Your task to perform on an android device: set default search engine in the chrome app Image 0: 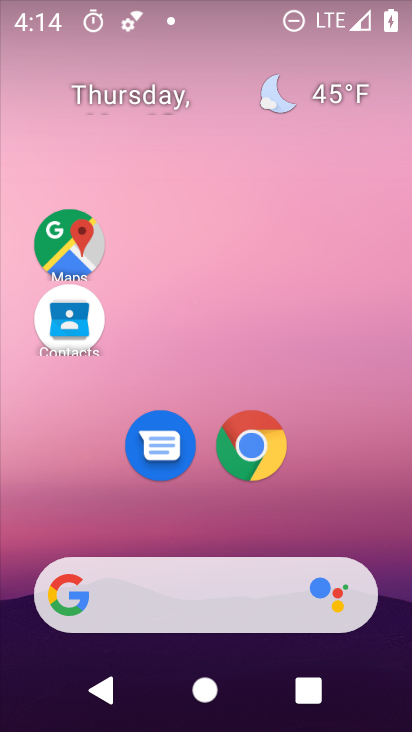
Step 0: click (252, 442)
Your task to perform on an android device: set default search engine in the chrome app Image 1: 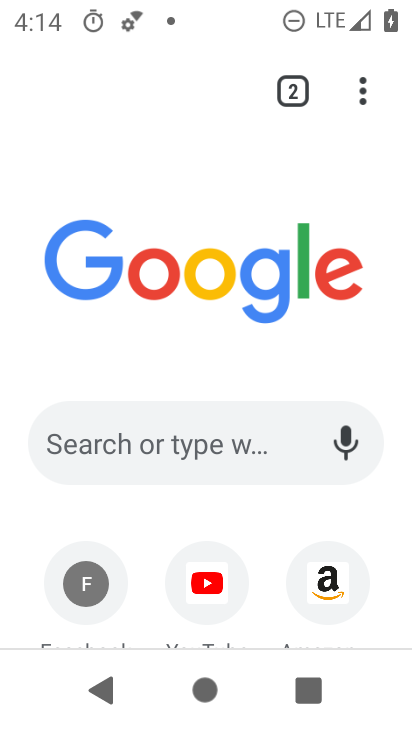
Step 1: click (362, 94)
Your task to perform on an android device: set default search engine in the chrome app Image 2: 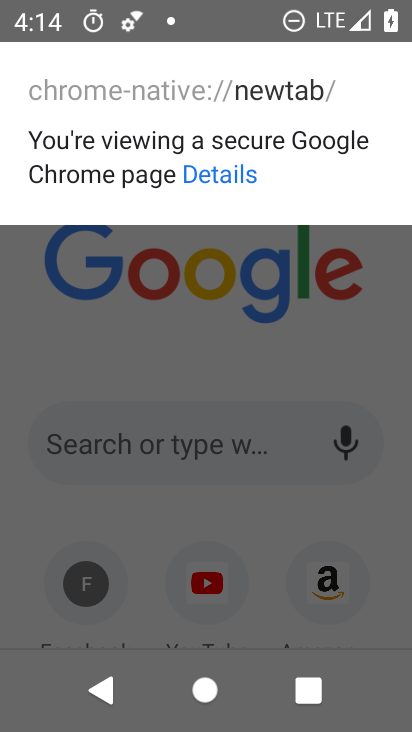
Step 2: click (391, 252)
Your task to perform on an android device: set default search engine in the chrome app Image 3: 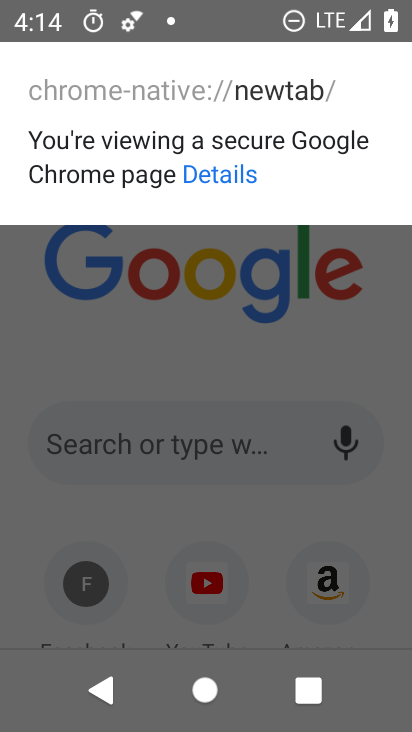
Step 3: click (393, 275)
Your task to perform on an android device: set default search engine in the chrome app Image 4: 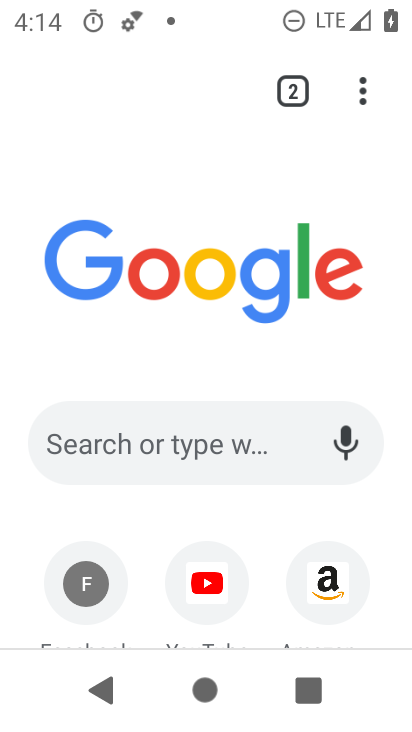
Step 4: click (361, 92)
Your task to perform on an android device: set default search engine in the chrome app Image 5: 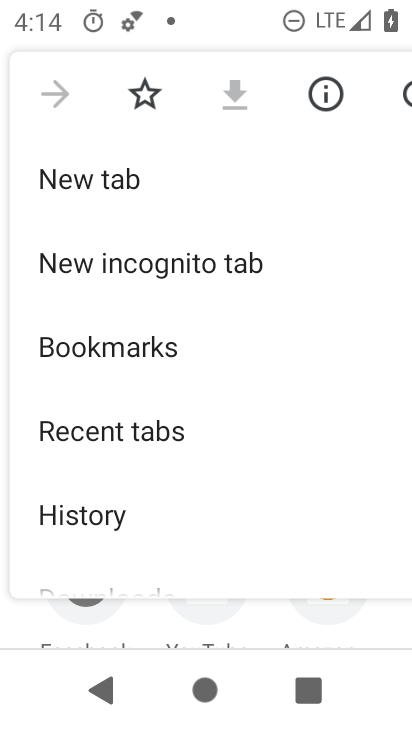
Step 5: drag from (198, 399) to (231, 293)
Your task to perform on an android device: set default search engine in the chrome app Image 6: 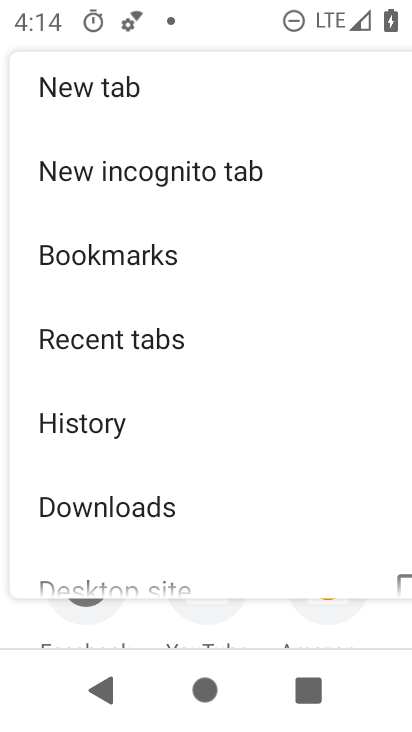
Step 6: drag from (201, 447) to (240, 327)
Your task to perform on an android device: set default search engine in the chrome app Image 7: 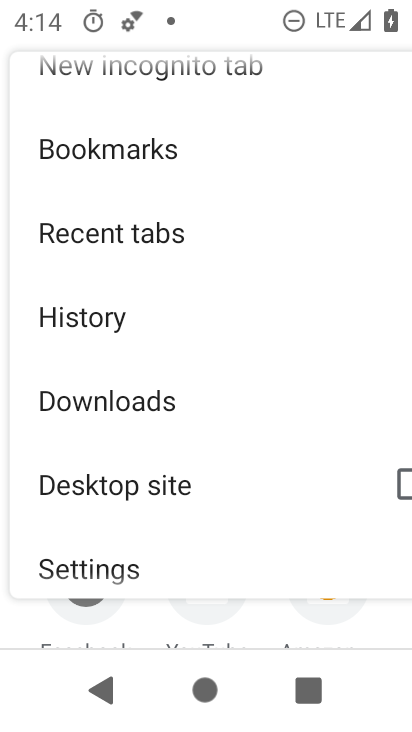
Step 7: drag from (194, 565) to (242, 441)
Your task to perform on an android device: set default search engine in the chrome app Image 8: 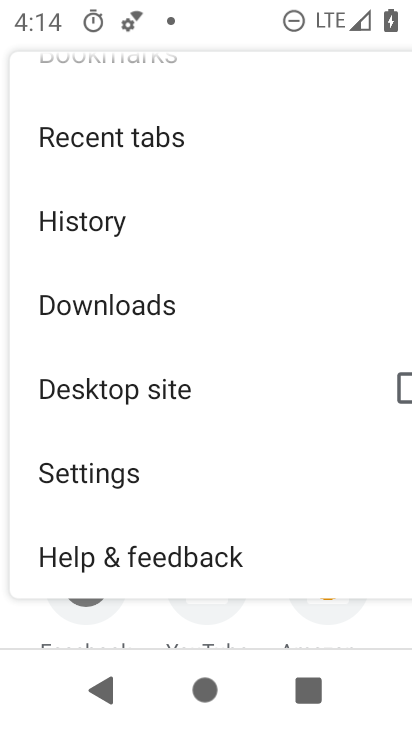
Step 8: click (127, 467)
Your task to perform on an android device: set default search engine in the chrome app Image 9: 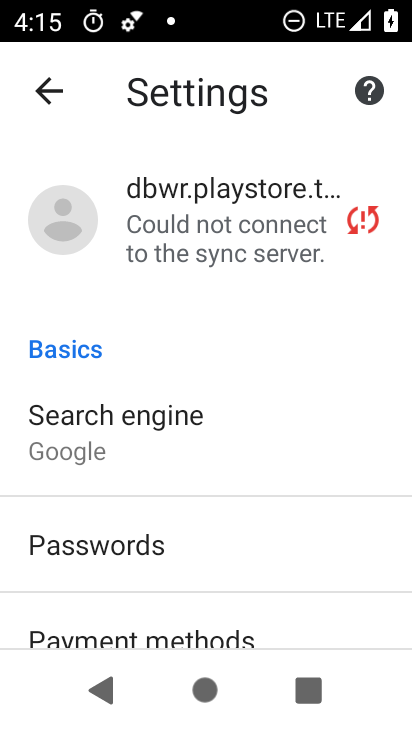
Step 9: click (137, 416)
Your task to perform on an android device: set default search engine in the chrome app Image 10: 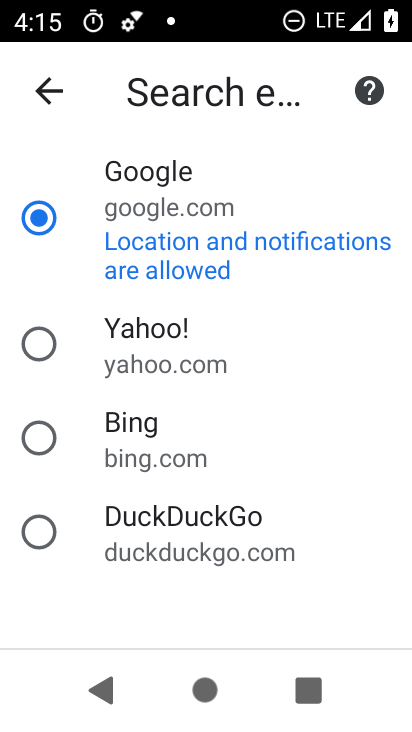
Step 10: click (130, 203)
Your task to perform on an android device: set default search engine in the chrome app Image 11: 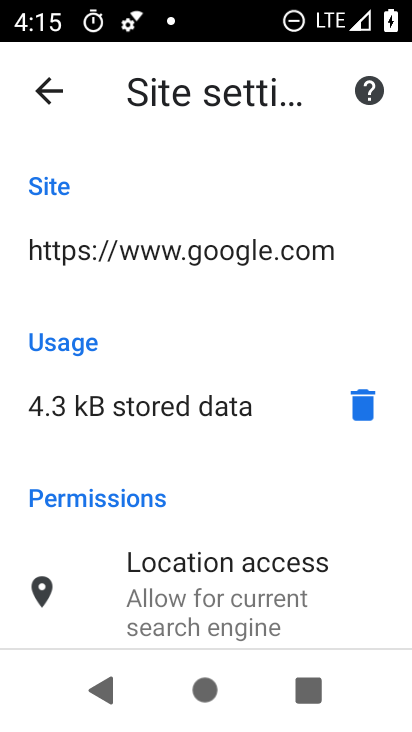
Step 11: click (39, 87)
Your task to perform on an android device: set default search engine in the chrome app Image 12: 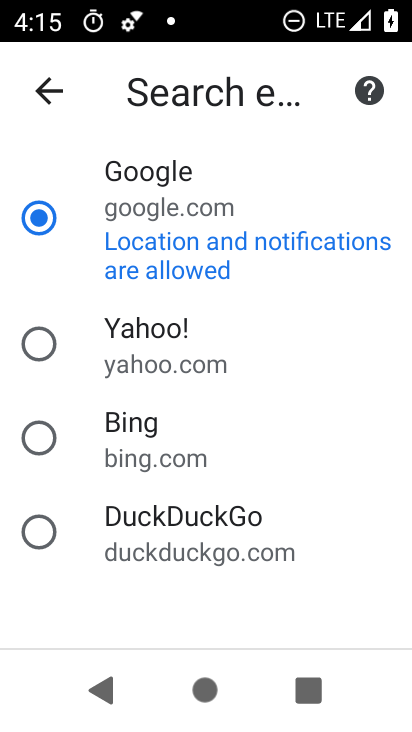
Step 12: click (33, 350)
Your task to perform on an android device: set default search engine in the chrome app Image 13: 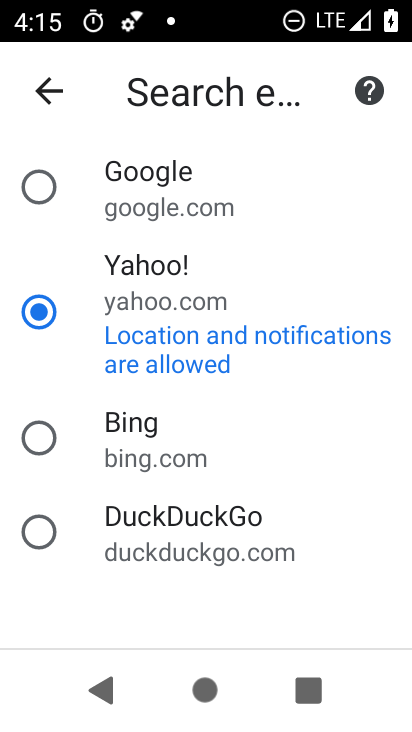
Step 13: task complete